Your task to perform on an android device: toggle javascript in the chrome app Image 0: 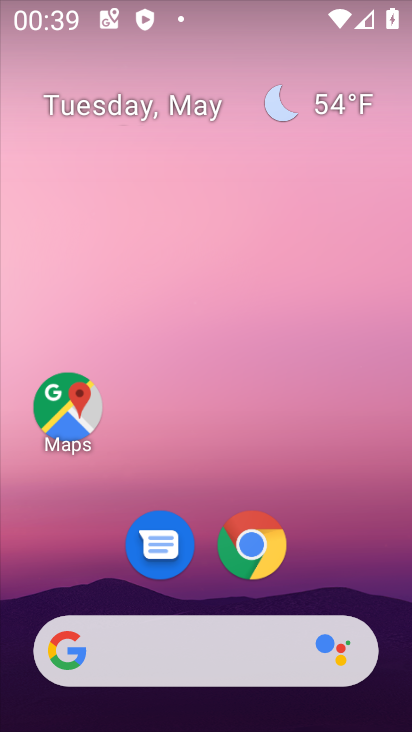
Step 0: click (245, 541)
Your task to perform on an android device: toggle javascript in the chrome app Image 1: 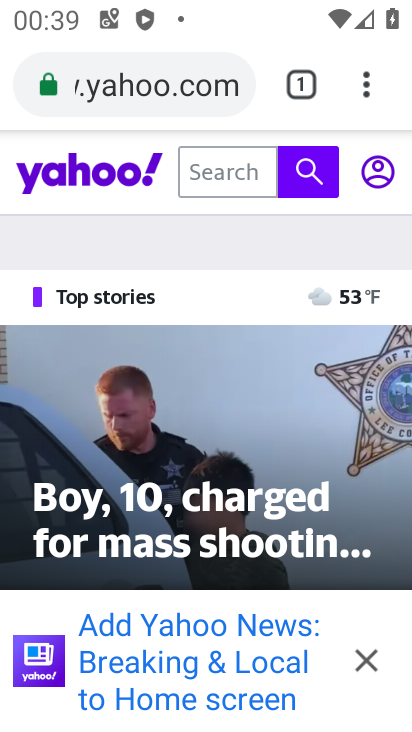
Step 1: click (364, 85)
Your task to perform on an android device: toggle javascript in the chrome app Image 2: 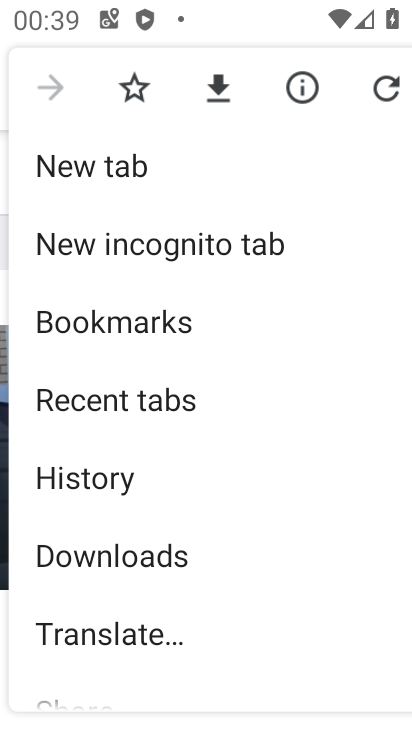
Step 2: drag from (226, 563) to (210, 253)
Your task to perform on an android device: toggle javascript in the chrome app Image 3: 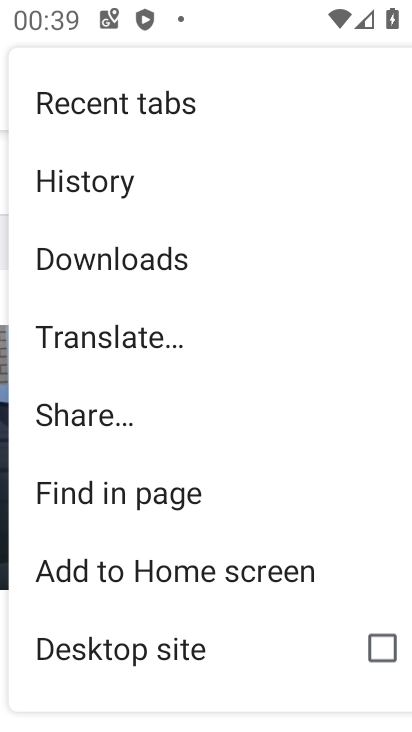
Step 3: drag from (184, 572) to (177, 260)
Your task to perform on an android device: toggle javascript in the chrome app Image 4: 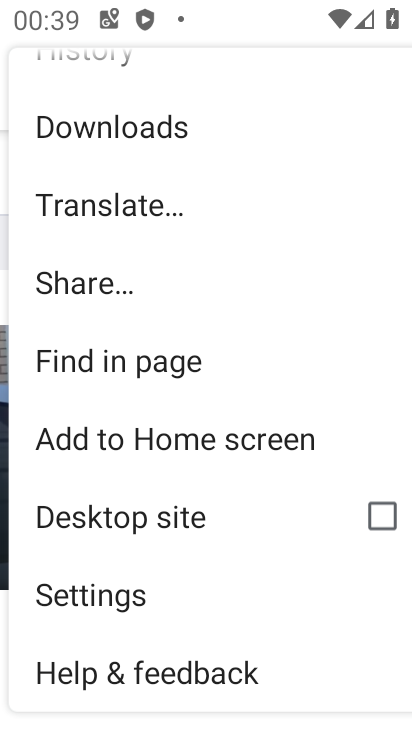
Step 4: click (183, 595)
Your task to perform on an android device: toggle javascript in the chrome app Image 5: 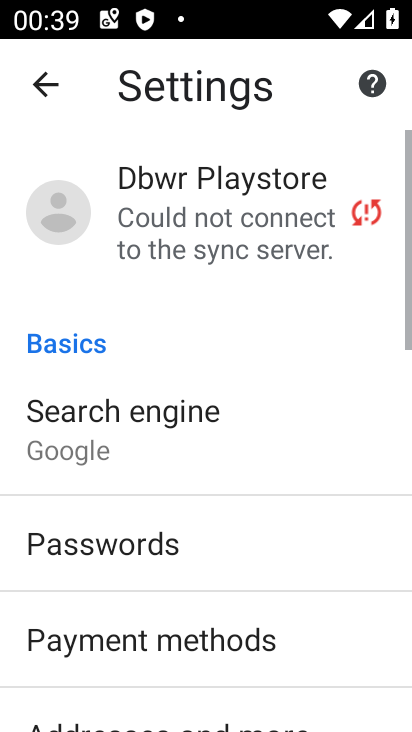
Step 5: drag from (202, 638) to (224, 192)
Your task to perform on an android device: toggle javascript in the chrome app Image 6: 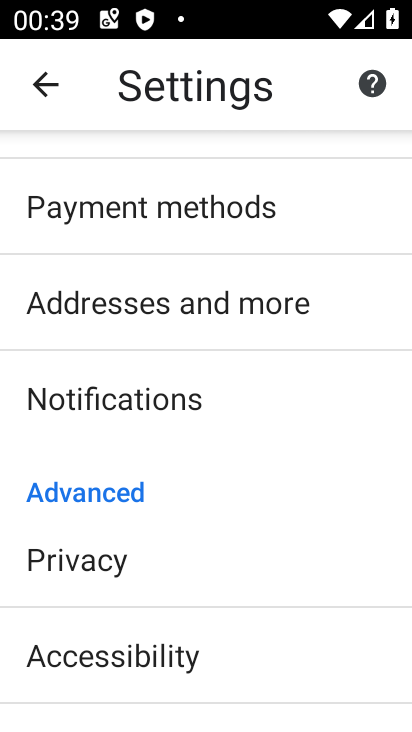
Step 6: drag from (195, 623) to (176, 221)
Your task to perform on an android device: toggle javascript in the chrome app Image 7: 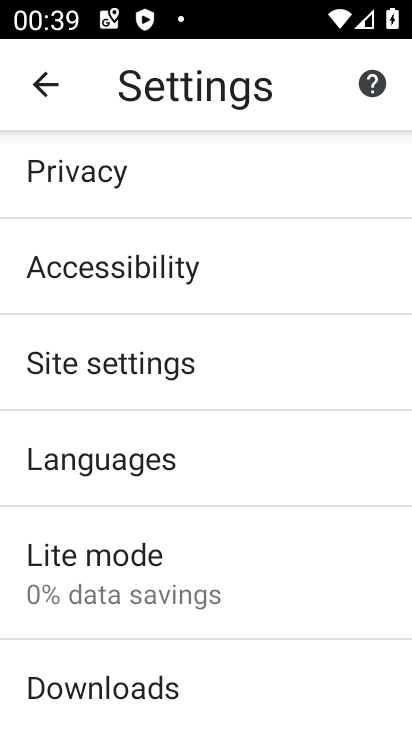
Step 7: click (130, 383)
Your task to perform on an android device: toggle javascript in the chrome app Image 8: 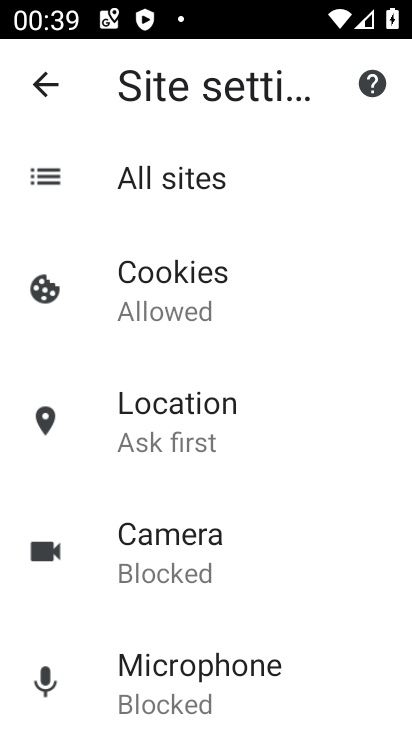
Step 8: drag from (185, 553) to (172, 103)
Your task to perform on an android device: toggle javascript in the chrome app Image 9: 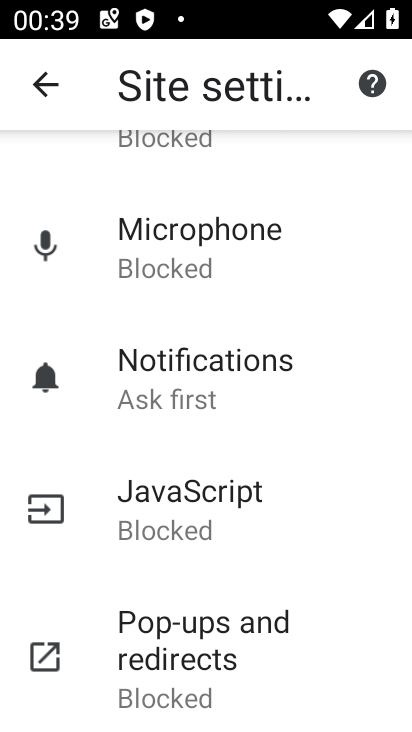
Step 9: click (170, 508)
Your task to perform on an android device: toggle javascript in the chrome app Image 10: 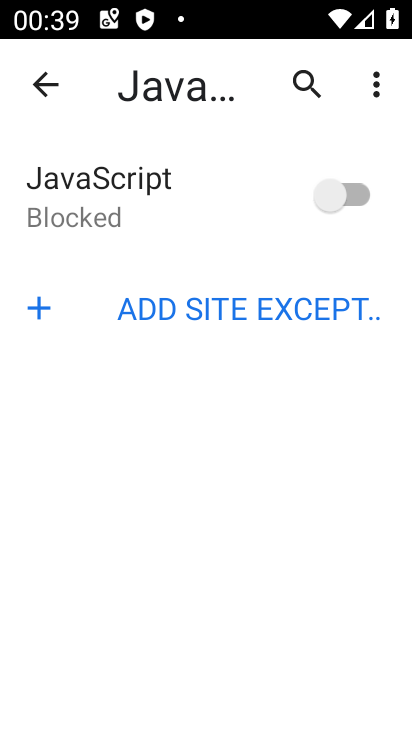
Step 10: click (322, 196)
Your task to perform on an android device: toggle javascript in the chrome app Image 11: 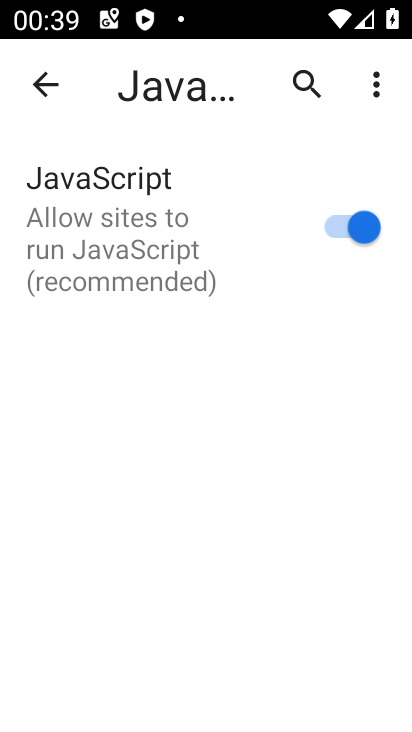
Step 11: task complete